Your task to perform on an android device: find photos in the google photos app Image 0: 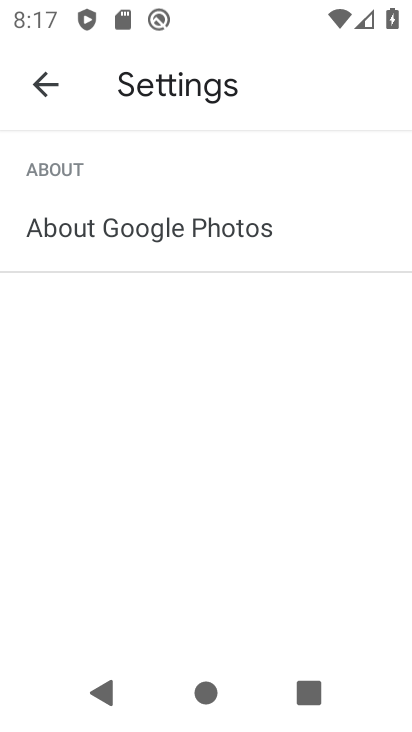
Step 0: press home button
Your task to perform on an android device: find photos in the google photos app Image 1: 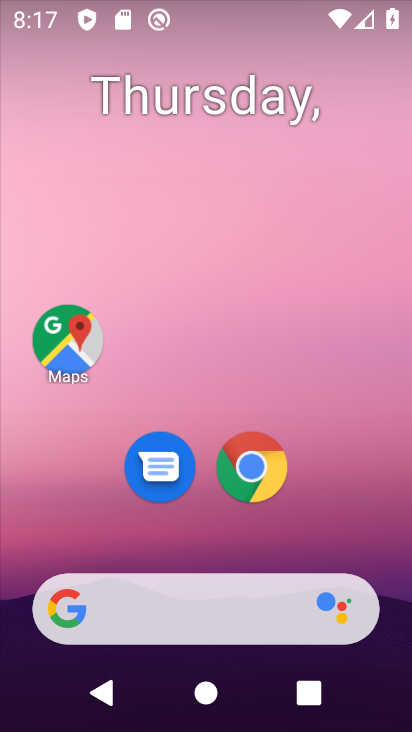
Step 1: drag from (316, 523) to (192, 8)
Your task to perform on an android device: find photos in the google photos app Image 2: 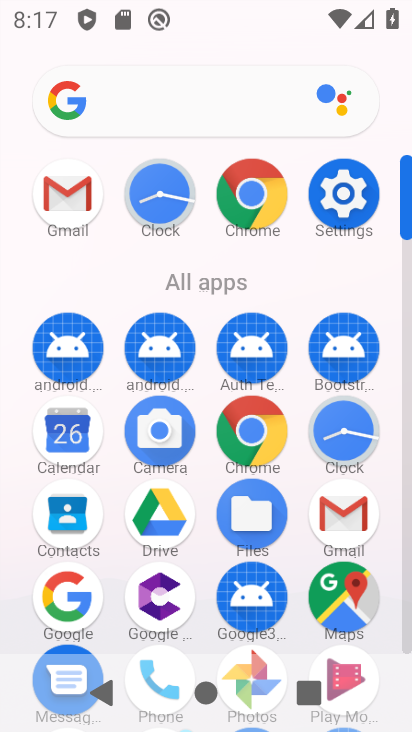
Step 2: drag from (200, 552) to (128, 192)
Your task to perform on an android device: find photos in the google photos app Image 3: 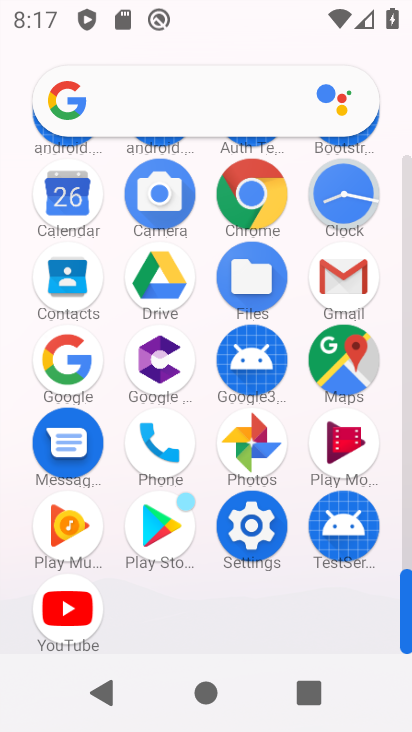
Step 3: click (258, 442)
Your task to perform on an android device: find photos in the google photos app Image 4: 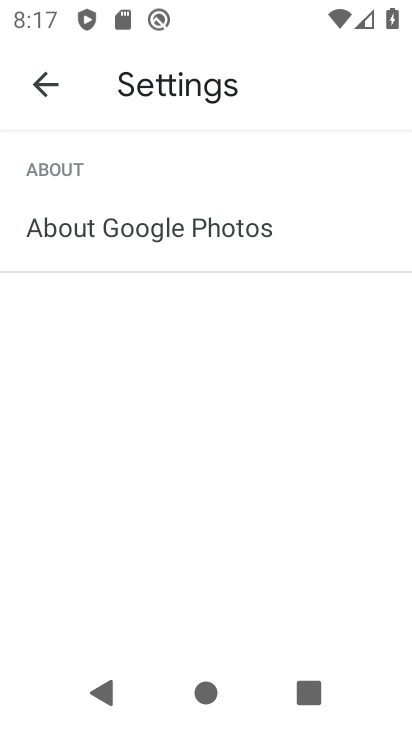
Step 4: click (43, 85)
Your task to perform on an android device: find photos in the google photos app Image 5: 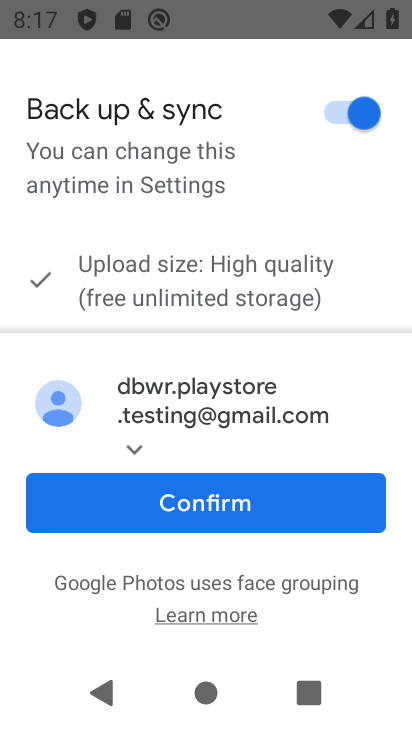
Step 5: click (249, 503)
Your task to perform on an android device: find photos in the google photos app Image 6: 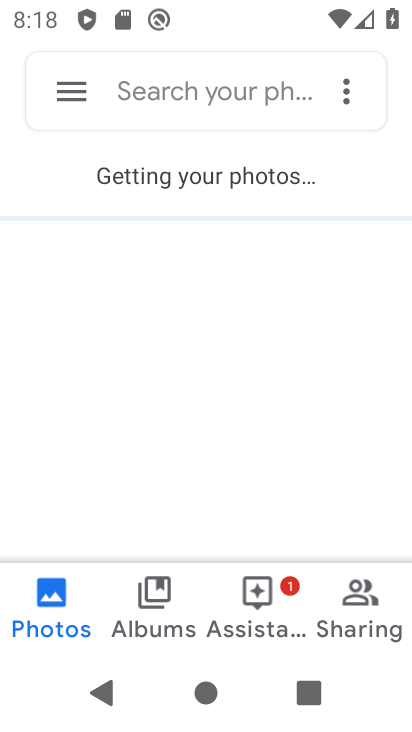
Step 6: click (190, 85)
Your task to perform on an android device: find photos in the google photos app Image 7: 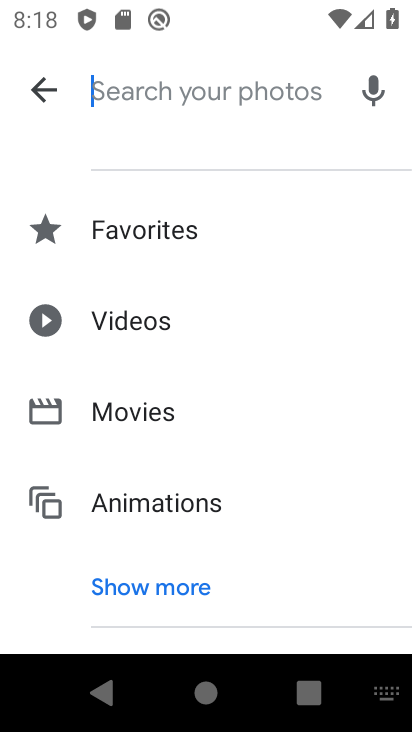
Step 7: task complete